Your task to perform on an android device: find photos in the google photos app Image 0: 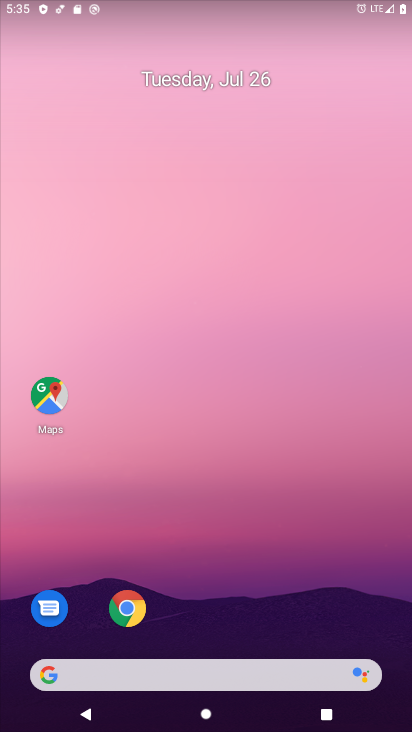
Step 0: drag from (343, 573) to (228, 66)
Your task to perform on an android device: find photos in the google photos app Image 1: 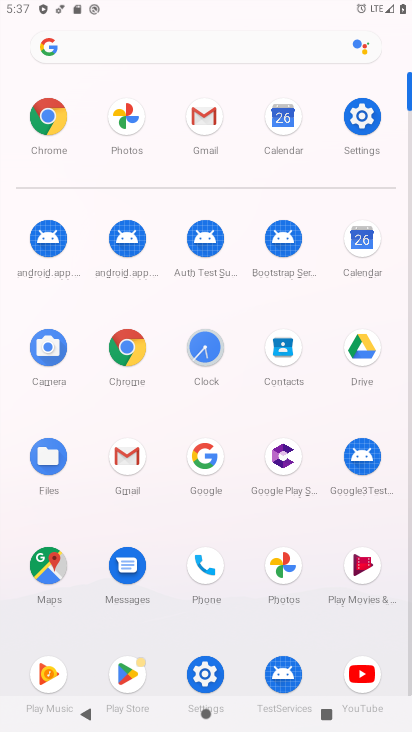
Step 1: click (272, 578)
Your task to perform on an android device: find photos in the google photos app Image 2: 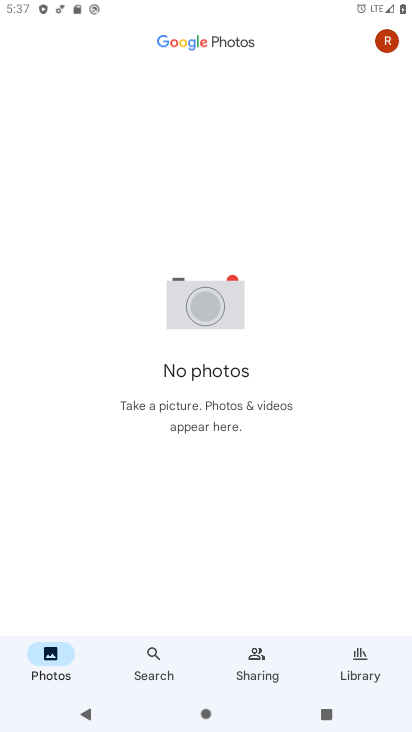
Step 2: task complete